Your task to perform on an android device: Open settings on Google Maps Image 0: 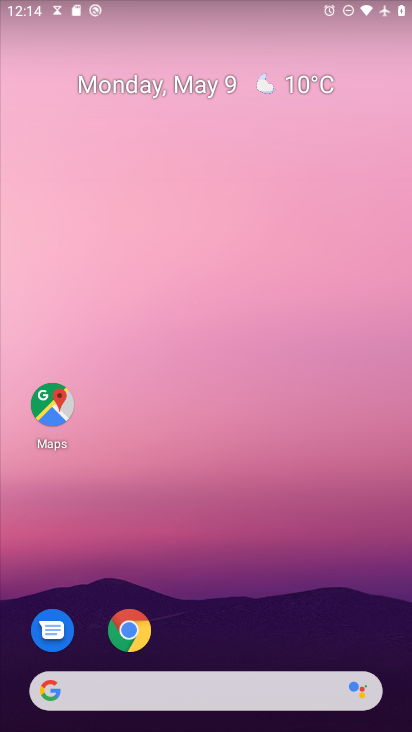
Step 0: click (58, 405)
Your task to perform on an android device: Open settings on Google Maps Image 1: 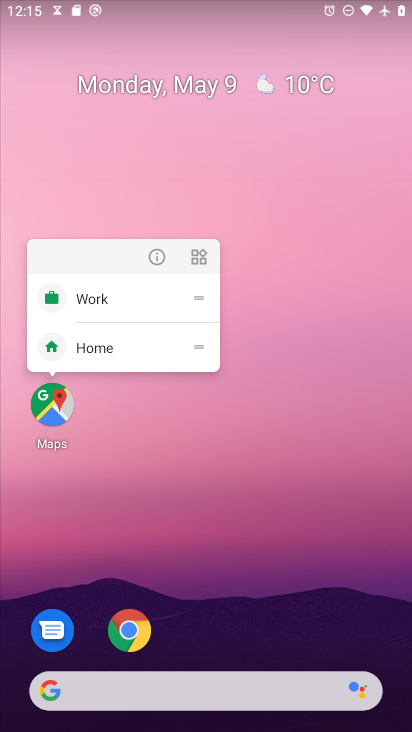
Step 1: click (58, 419)
Your task to perform on an android device: Open settings on Google Maps Image 2: 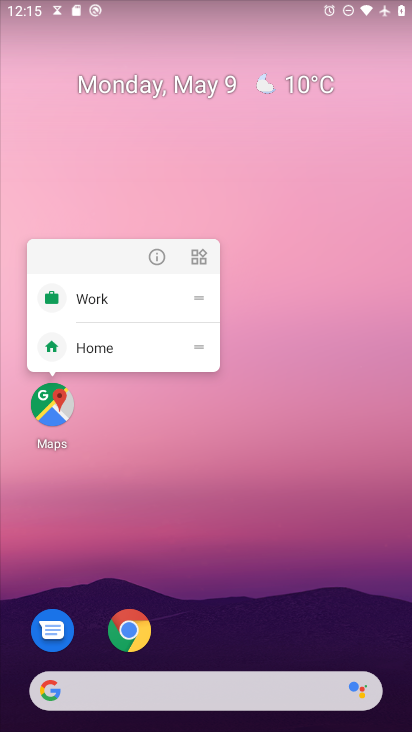
Step 2: click (50, 414)
Your task to perform on an android device: Open settings on Google Maps Image 3: 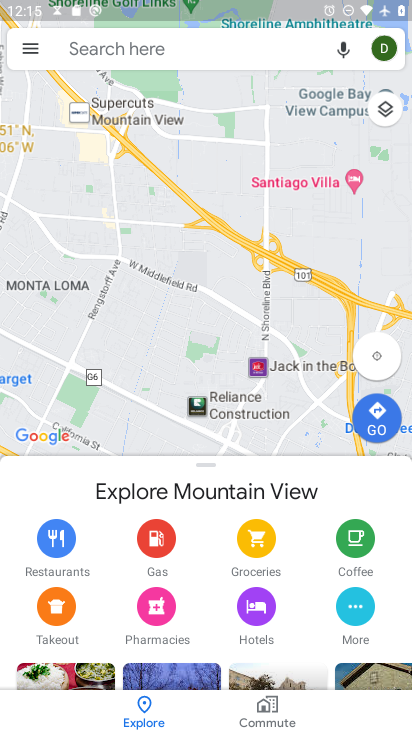
Step 3: click (37, 53)
Your task to perform on an android device: Open settings on Google Maps Image 4: 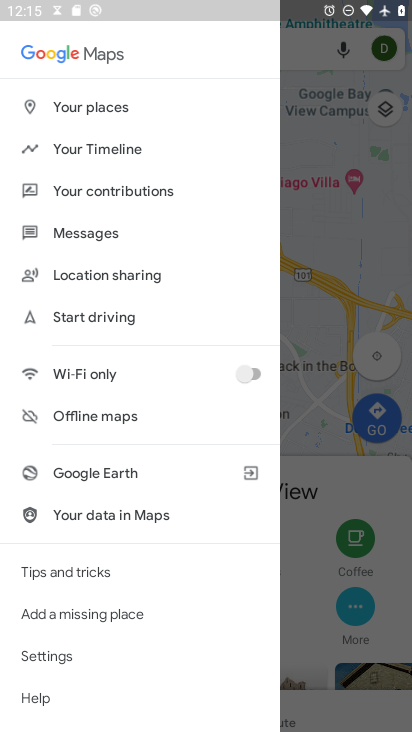
Step 4: click (48, 657)
Your task to perform on an android device: Open settings on Google Maps Image 5: 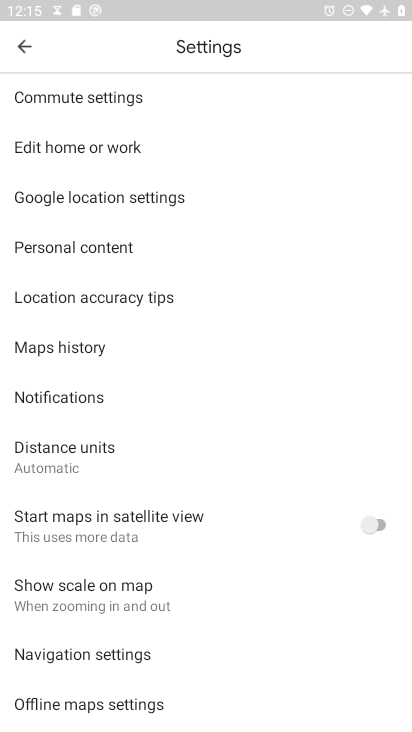
Step 5: task complete